Your task to perform on an android device: open app "ZOOM Cloud Meetings" (install if not already installed) Image 0: 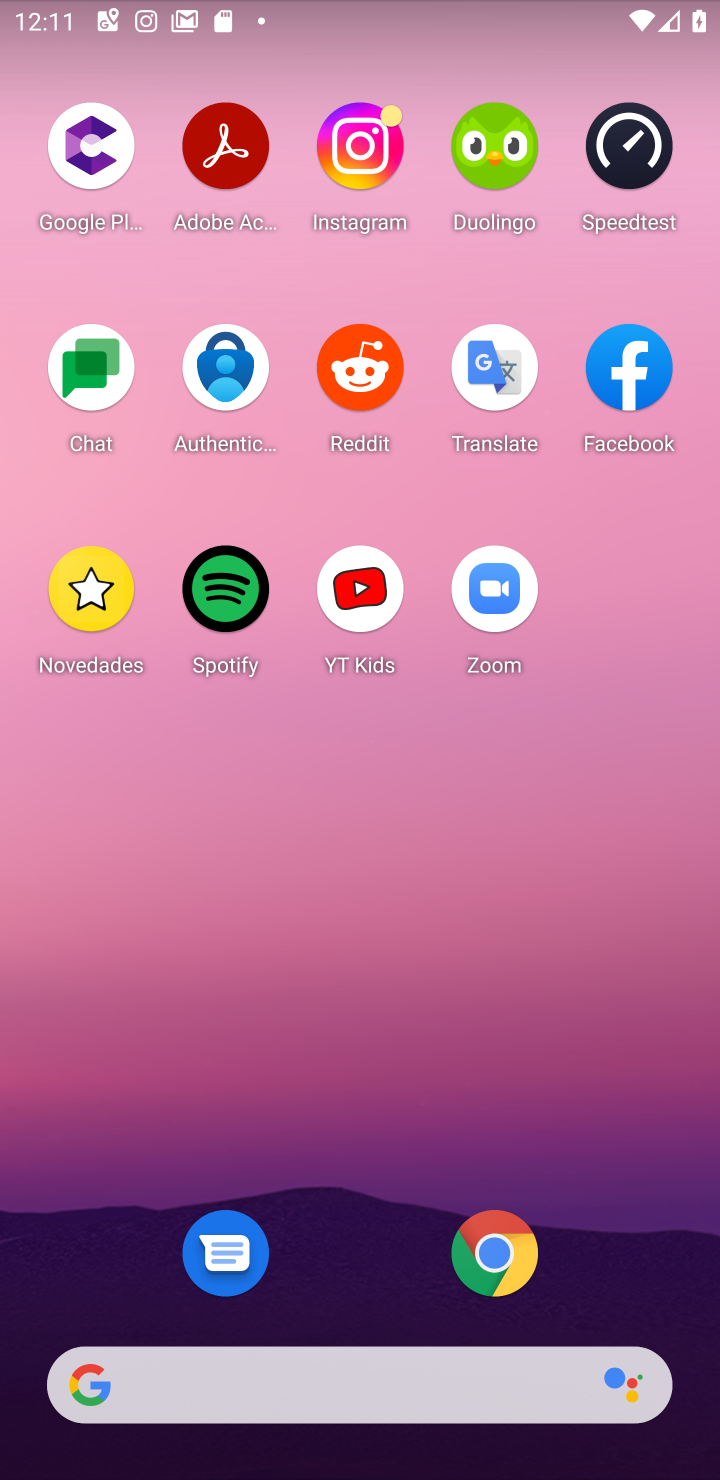
Step 0: drag from (292, 342) to (360, 0)
Your task to perform on an android device: open app "ZOOM Cloud Meetings" (install if not already installed) Image 1: 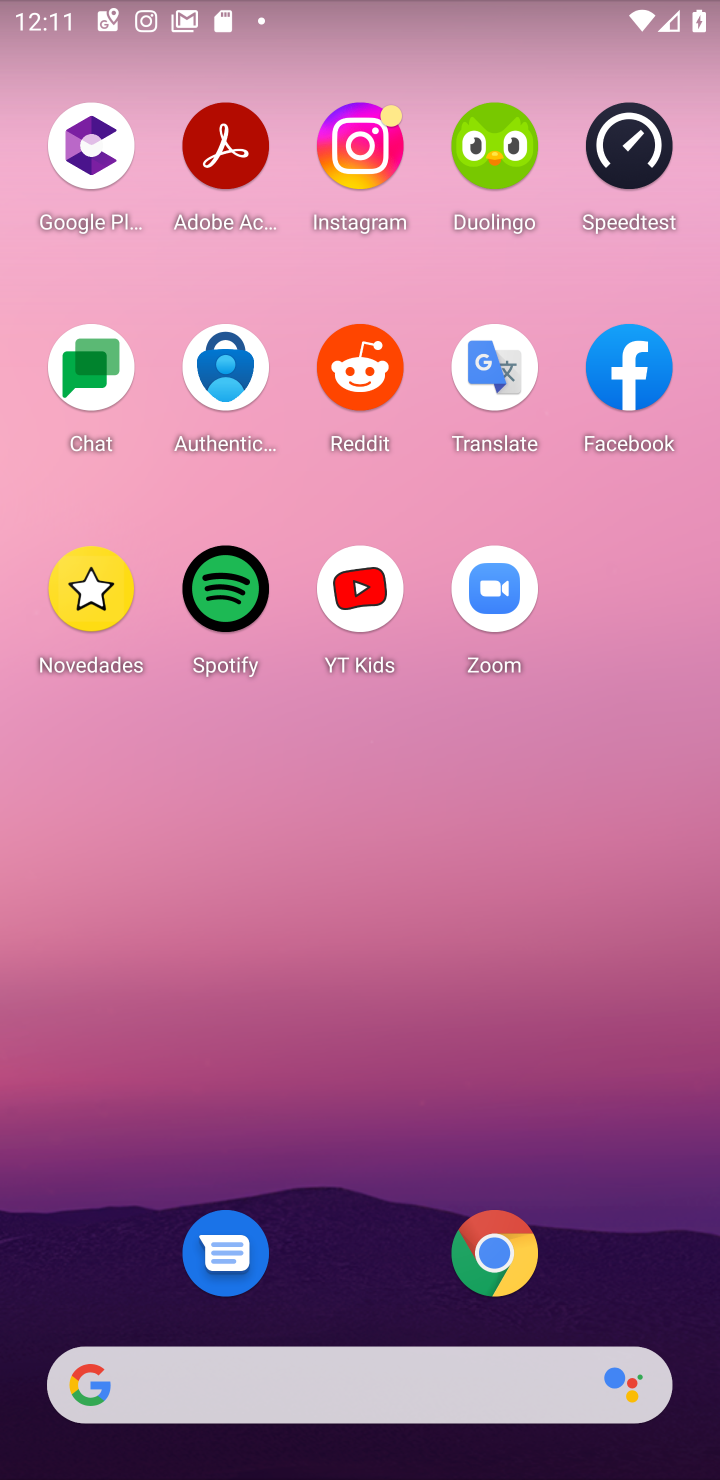
Step 1: drag from (364, 1128) to (364, 61)
Your task to perform on an android device: open app "ZOOM Cloud Meetings" (install if not already installed) Image 2: 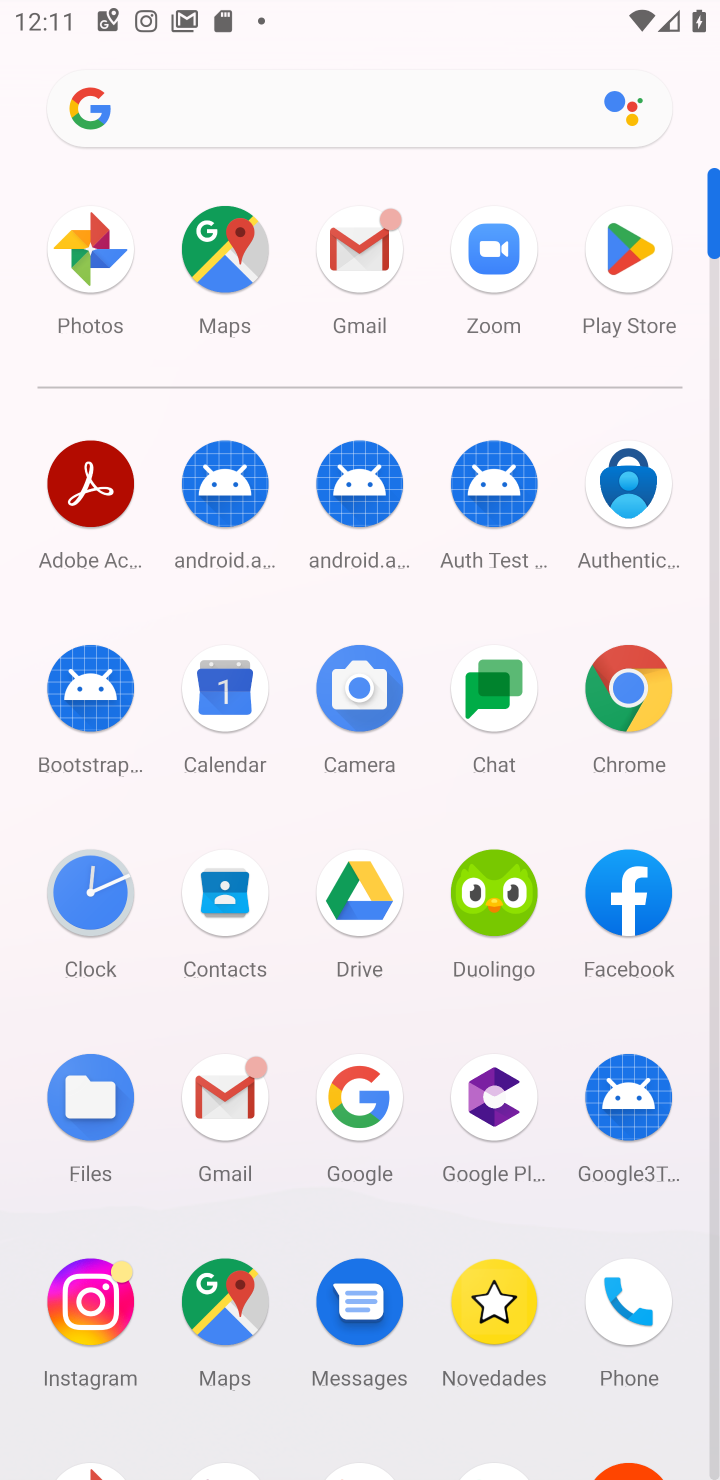
Step 2: click (639, 245)
Your task to perform on an android device: open app "ZOOM Cloud Meetings" (install if not already installed) Image 3: 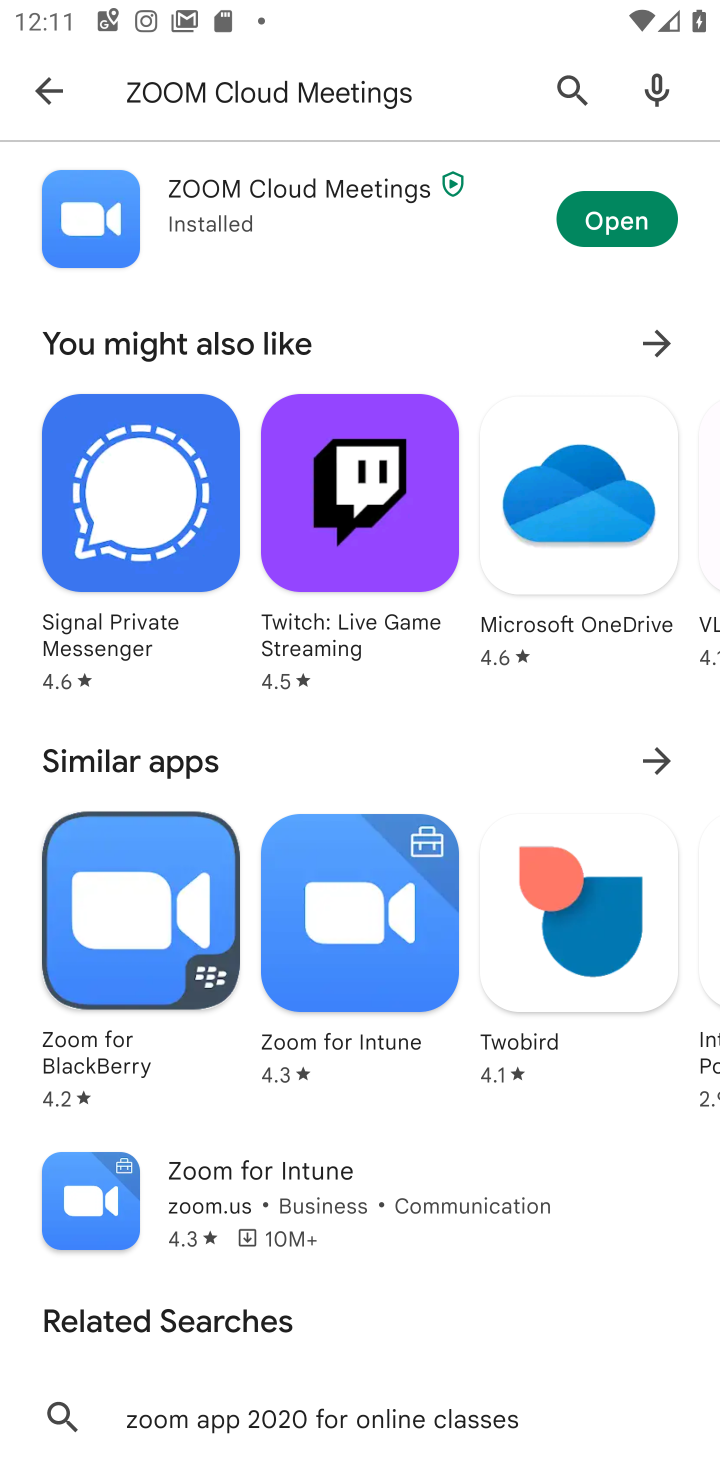
Step 3: click (470, 94)
Your task to perform on an android device: open app "ZOOM Cloud Meetings" (install if not already installed) Image 4: 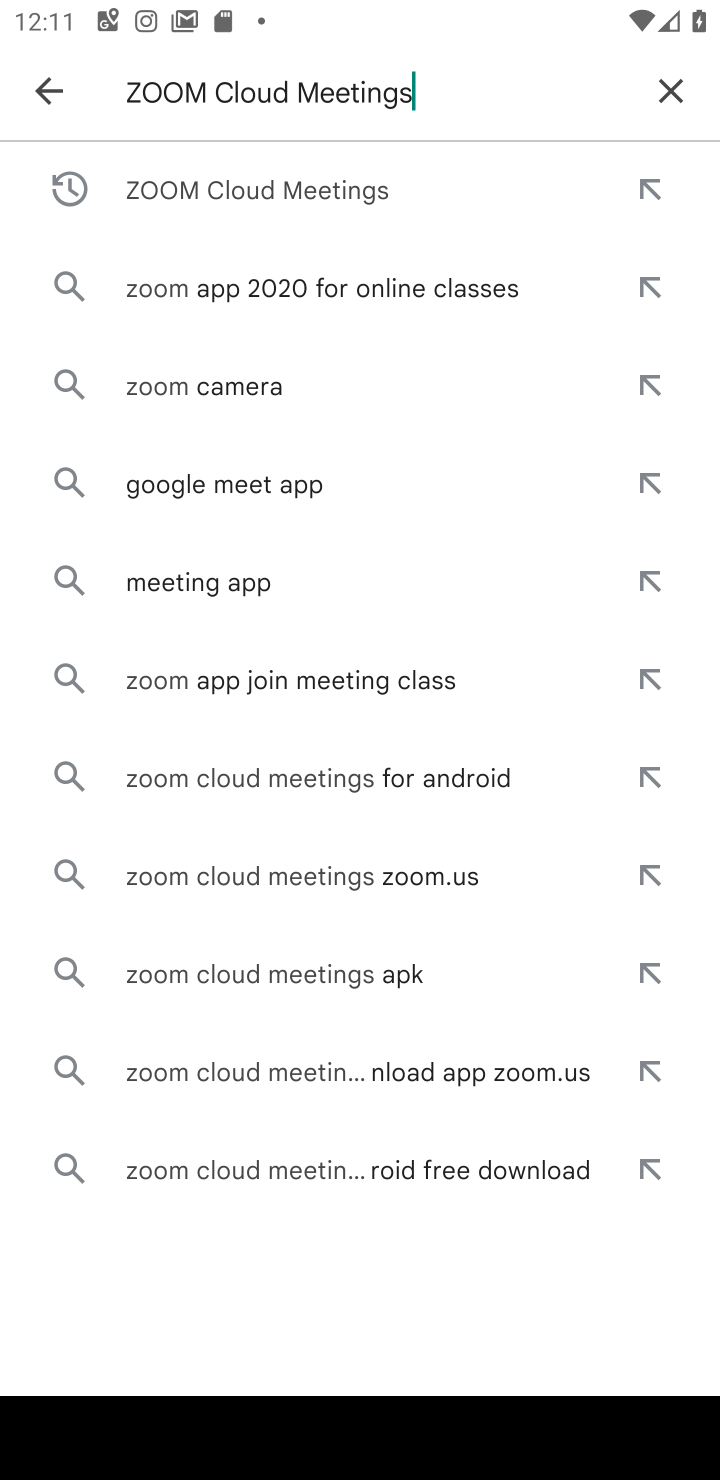
Step 4: click (671, 77)
Your task to perform on an android device: open app "ZOOM Cloud Meetings" (install if not already installed) Image 5: 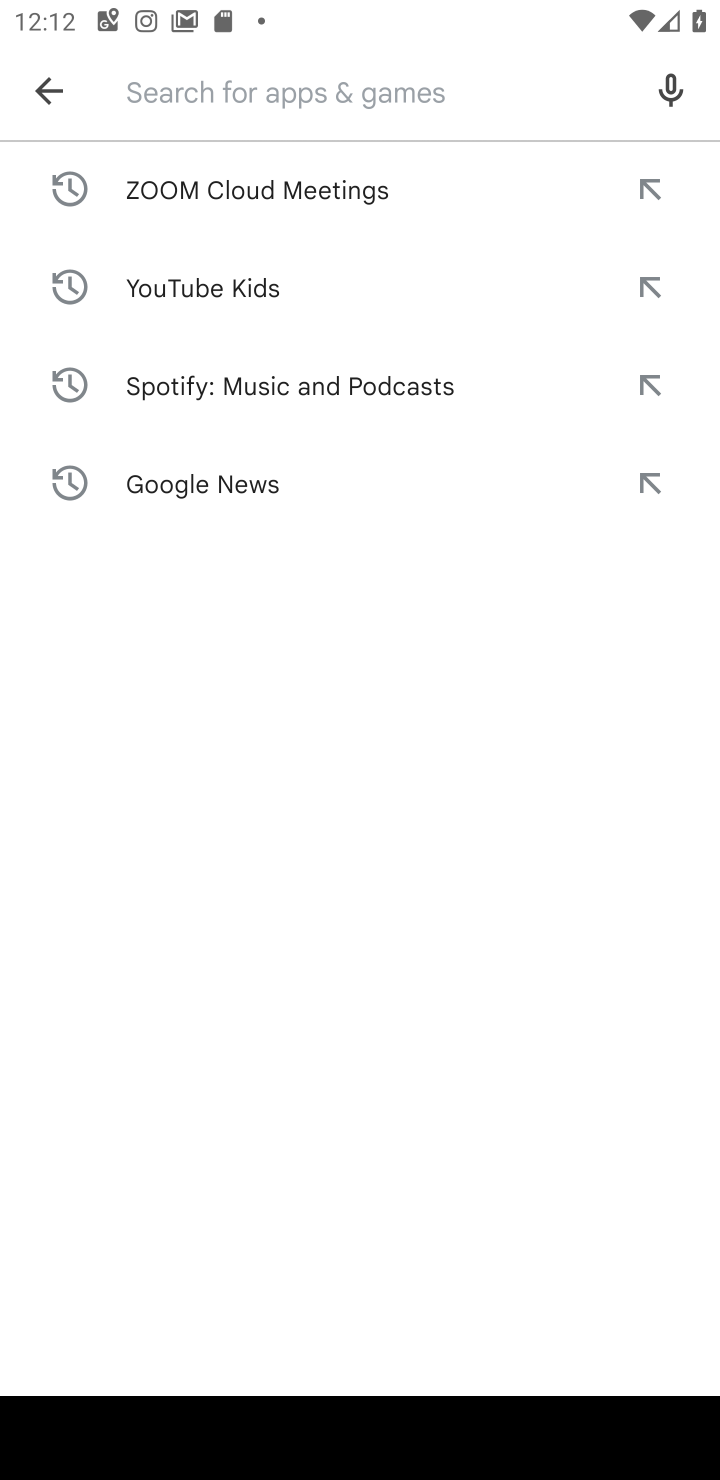
Step 5: type "ZOOM Cloud Meetings"
Your task to perform on an android device: open app "ZOOM Cloud Meetings" (install if not already installed) Image 6: 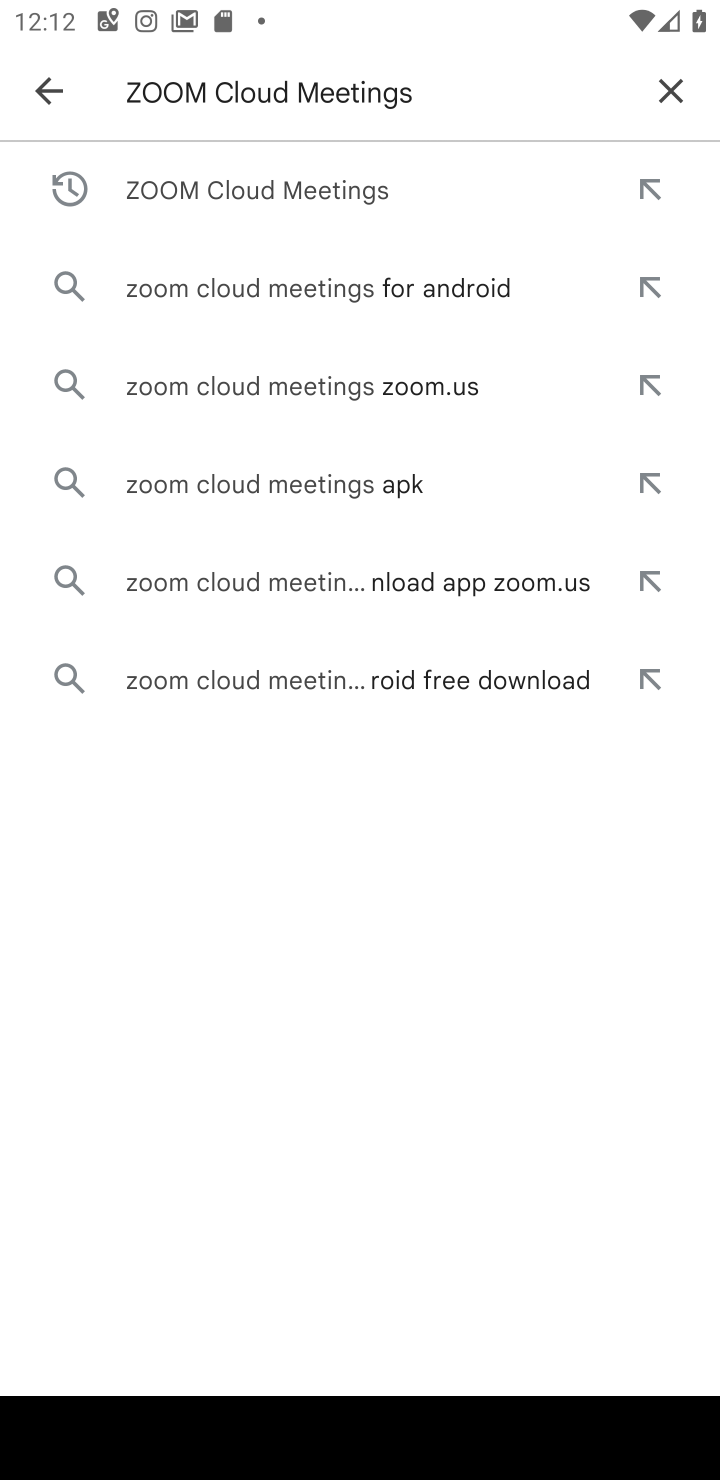
Step 6: press enter
Your task to perform on an android device: open app "ZOOM Cloud Meetings" (install if not already installed) Image 7: 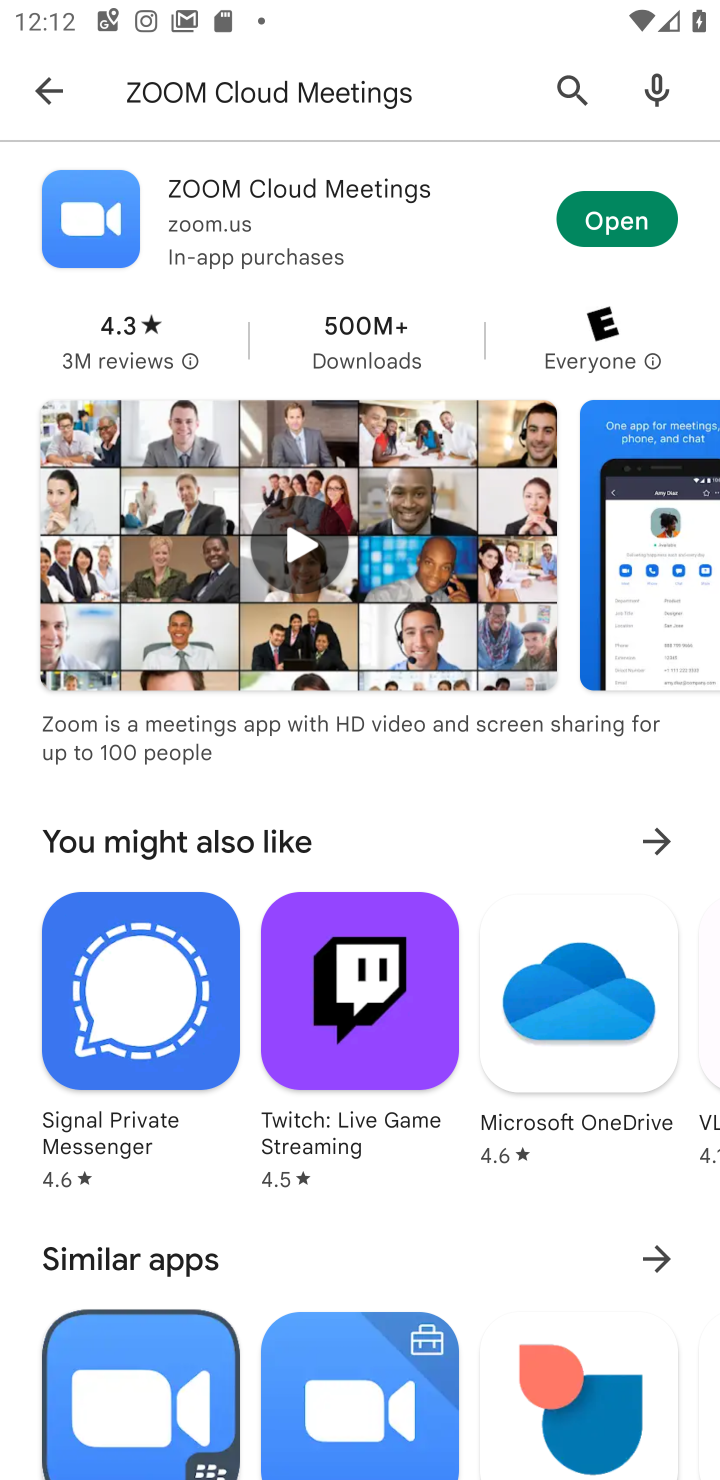
Step 7: click (624, 204)
Your task to perform on an android device: open app "ZOOM Cloud Meetings" (install if not already installed) Image 8: 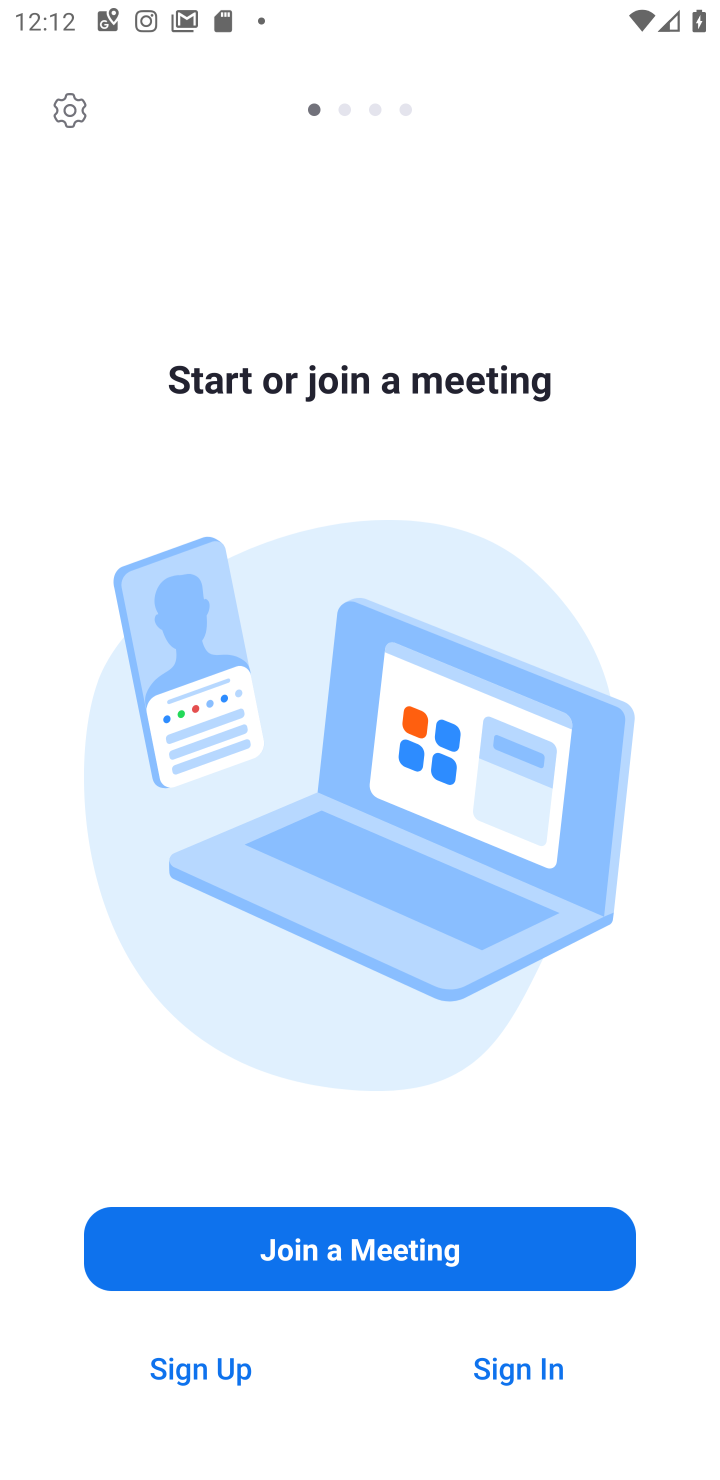
Step 8: task complete